Your task to perform on an android device: When is my next appointment? Image 0: 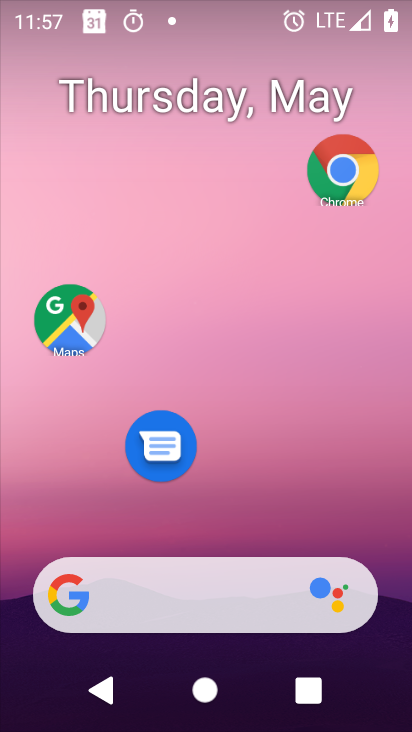
Step 0: drag from (300, 585) to (289, 24)
Your task to perform on an android device: When is my next appointment? Image 1: 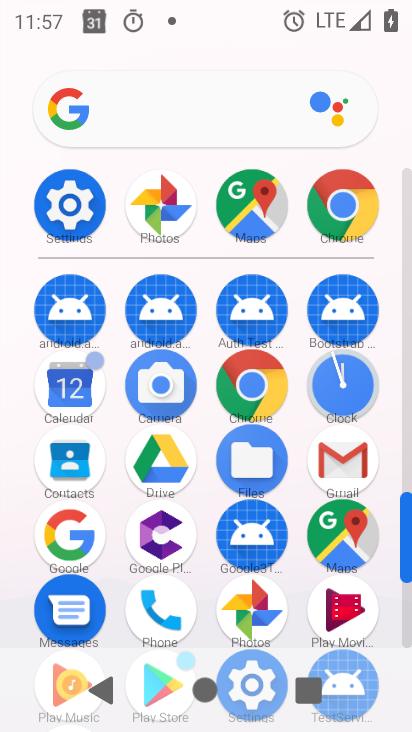
Step 1: click (60, 386)
Your task to perform on an android device: When is my next appointment? Image 2: 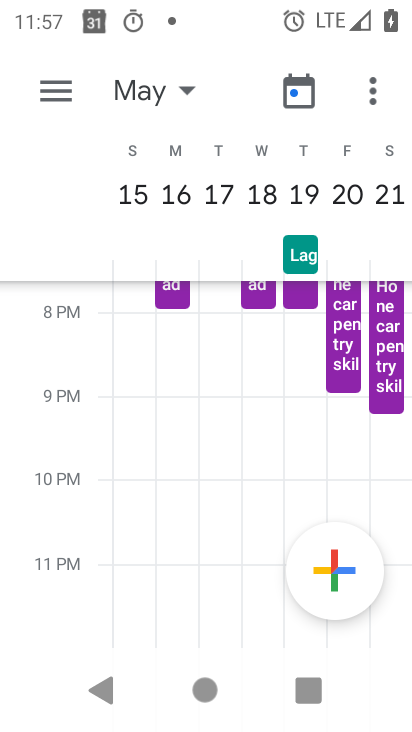
Step 2: click (179, 91)
Your task to perform on an android device: When is my next appointment? Image 3: 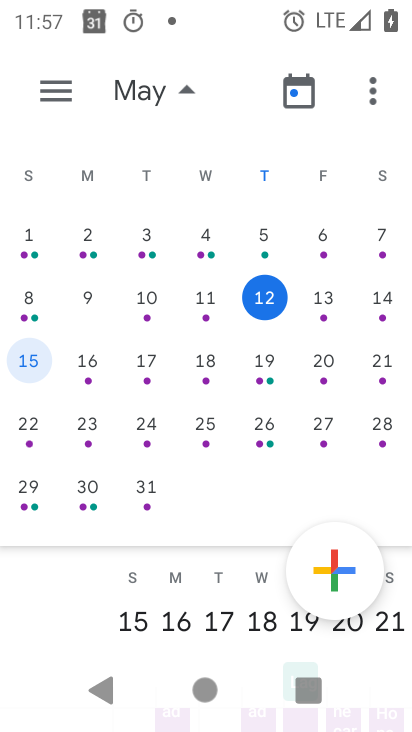
Step 3: click (317, 306)
Your task to perform on an android device: When is my next appointment? Image 4: 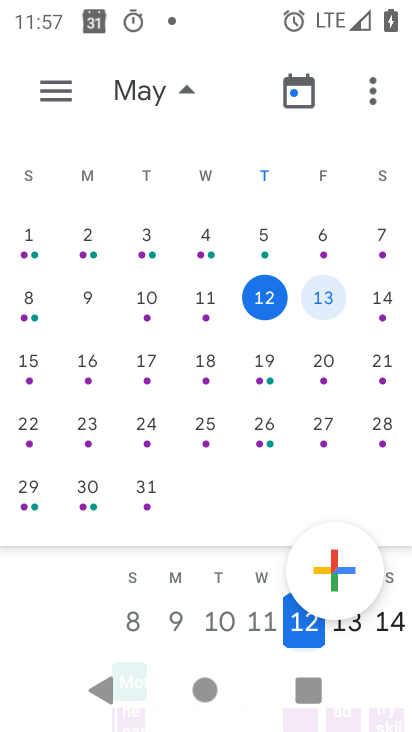
Step 4: task complete